Your task to perform on an android device: turn off notifications in google photos Image 0: 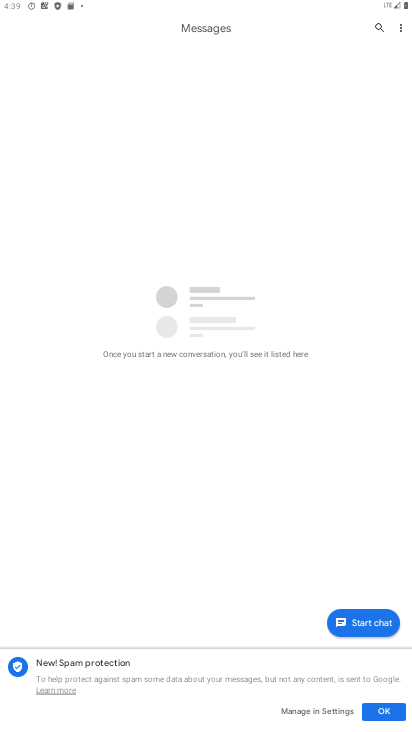
Step 0: press home button
Your task to perform on an android device: turn off notifications in google photos Image 1: 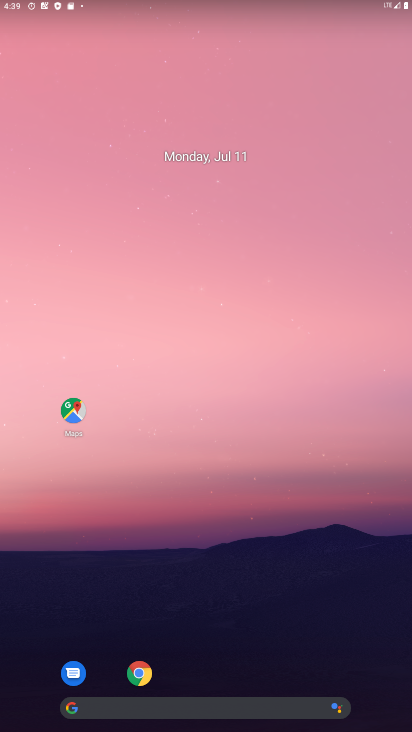
Step 1: drag from (206, 706) to (184, 228)
Your task to perform on an android device: turn off notifications in google photos Image 2: 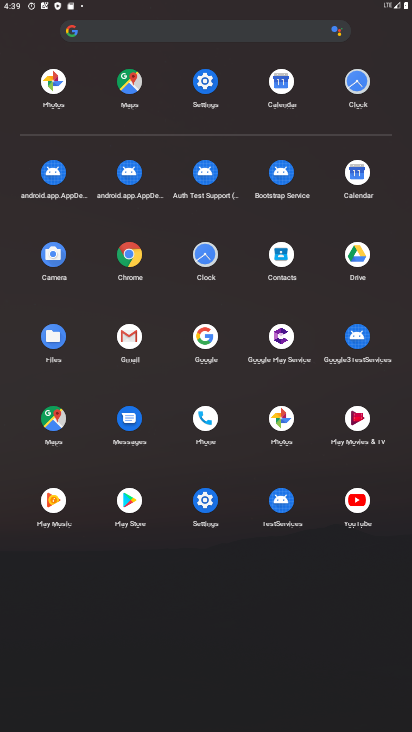
Step 2: click (53, 83)
Your task to perform on an android device: turn off notifications in google photos Image 3: 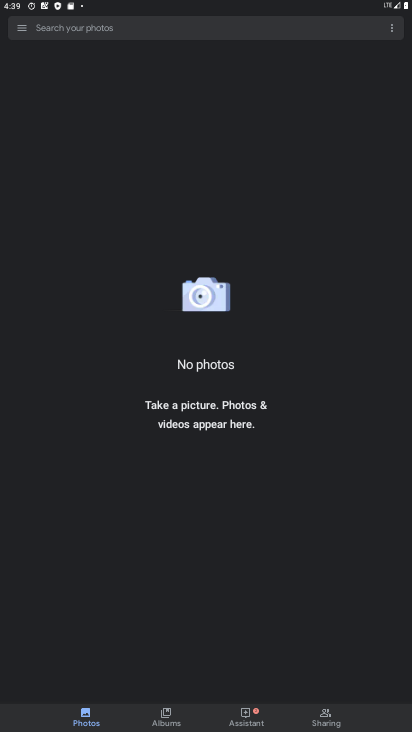
Step 3: click (22, 39)
Your task to perform on an android device: turn off notifications in google photos Image 4: 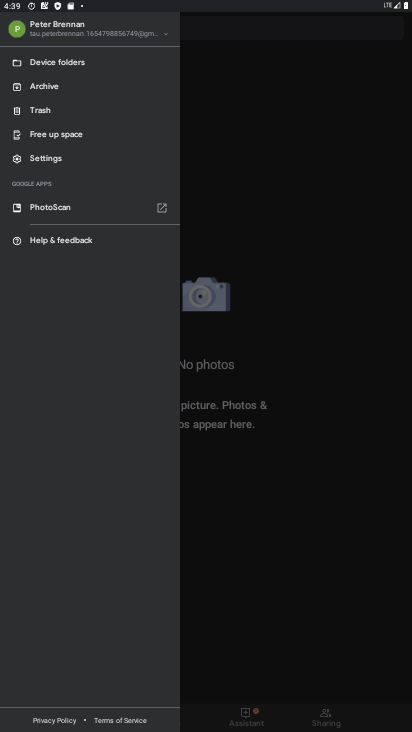
Step 4: click (47, 158)
Your task to perform on an android device: turn off notifications in google photos Image 5: 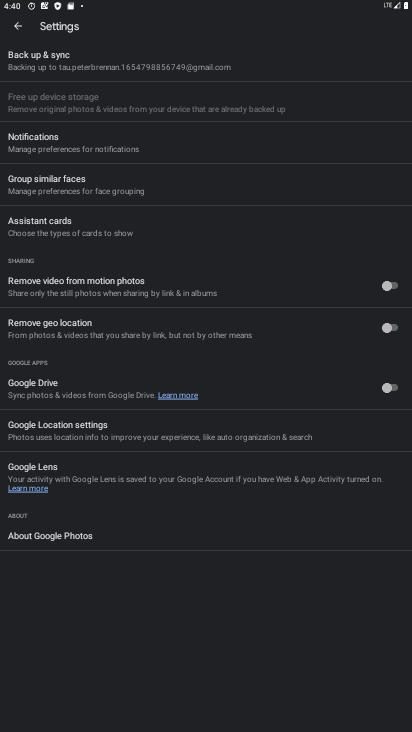
Step 5: click (66, 147)
Your task to perform on an android device: turn off notifications in google photos Image 6: 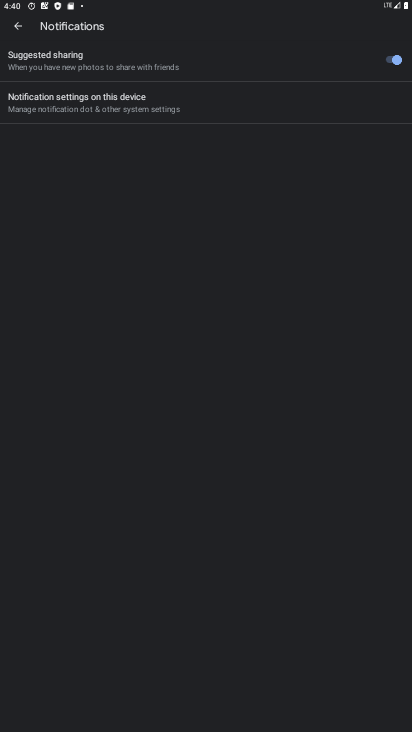
Step 6: click (82, 105)
Your task to perform on an android device: turn off notifications in google photos Image 7: 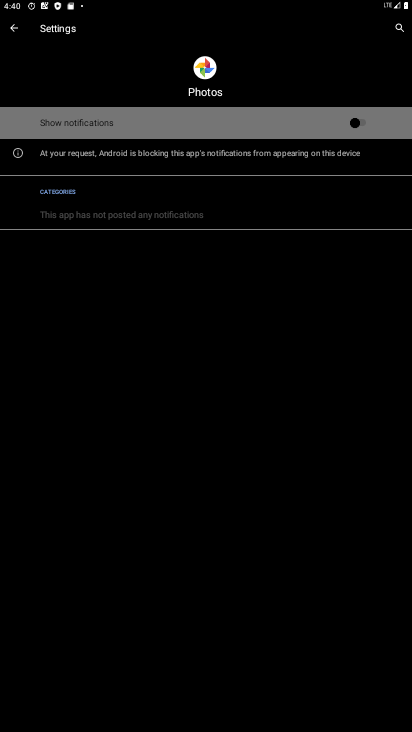
Step 7: task complete